Your task to perform on an android device: Go to Amazon Image 0: 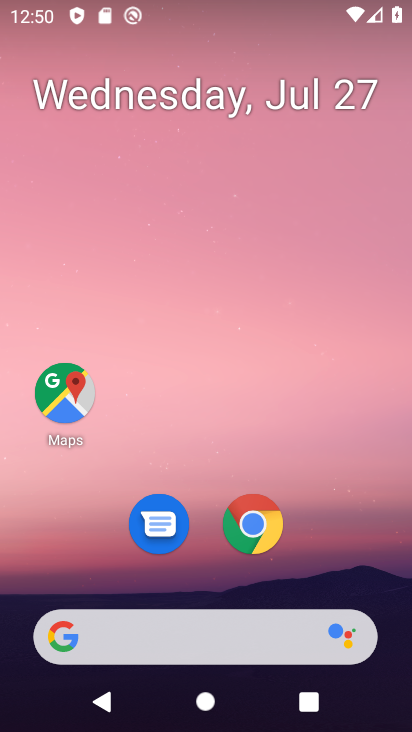
Step 0: click (256, 521)
Your task to perform on an android device: Go to Amazon Image 1: 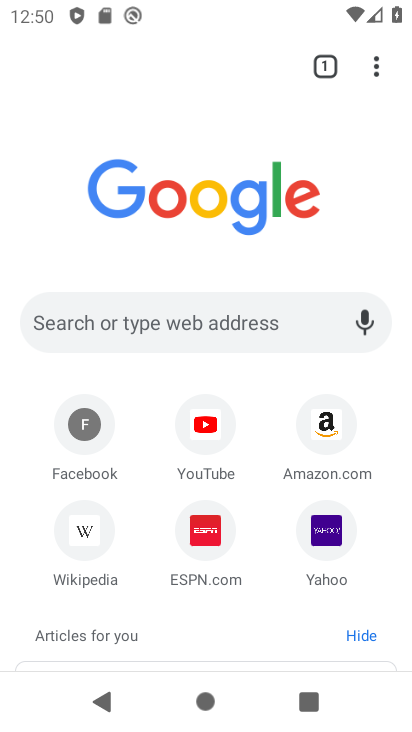
Step 1: click (331, 427)
Your task to perform on an android device: Go to Amazon Image 2: 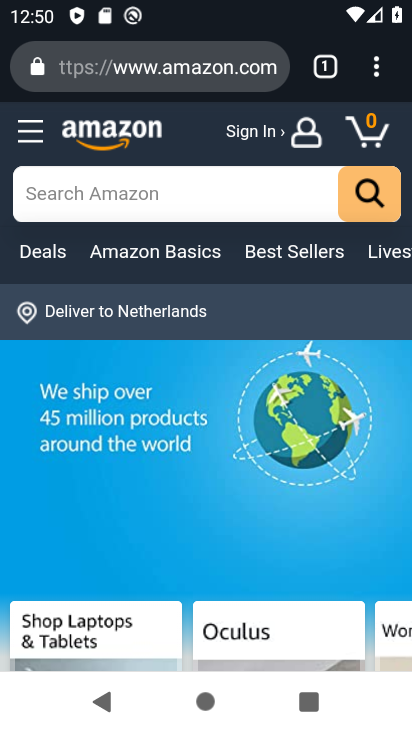
Step 2: task complete